Your task to perform on an android device: turn pop-ups off in chrome Image 0: 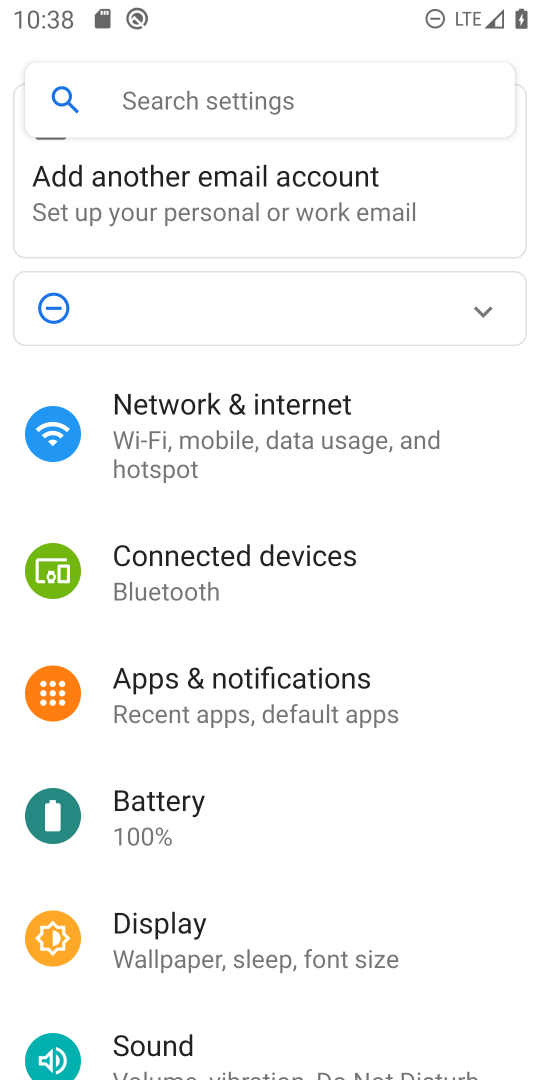
Step 0: press home button
Your task to perform on an android device: turn pop-ups off in chrome Image 1: 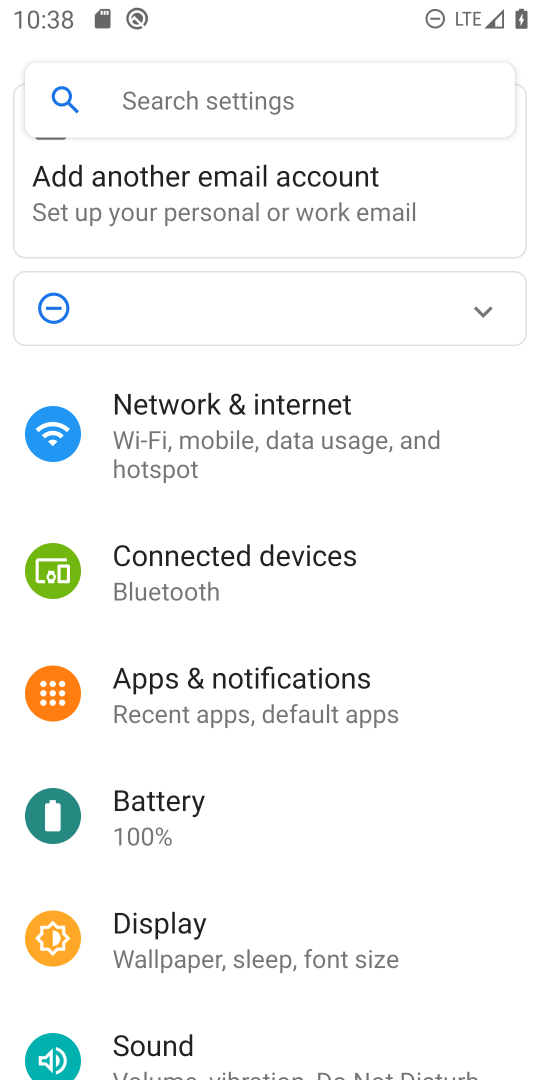
Step 1: press home button
Your task to perform on an android device: turn pop-ups off in chrome Image 2: 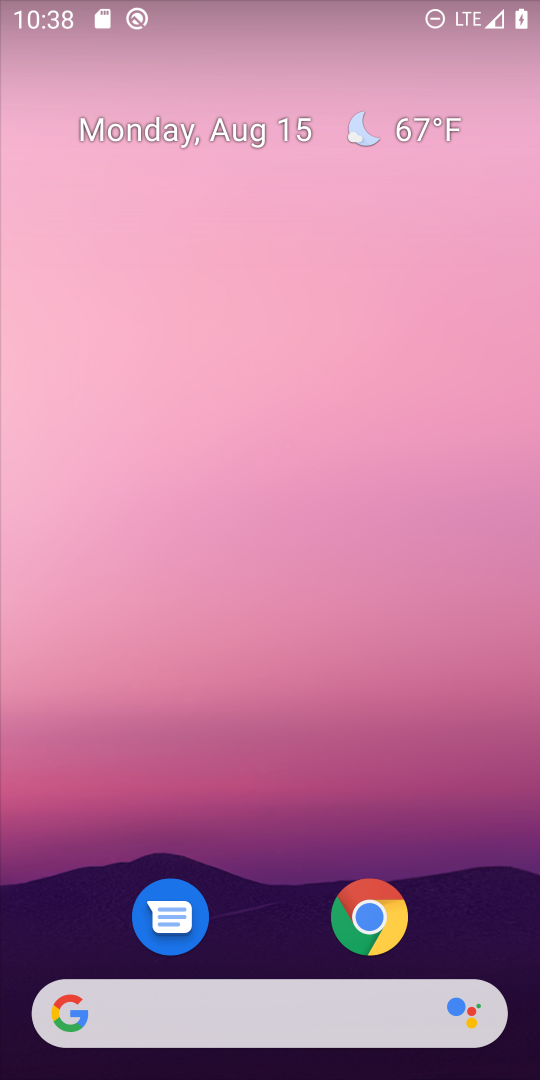
Step 2: click (371, 910)
Your task to perform on an android device: turn pop-ups off in chrome Image 3: 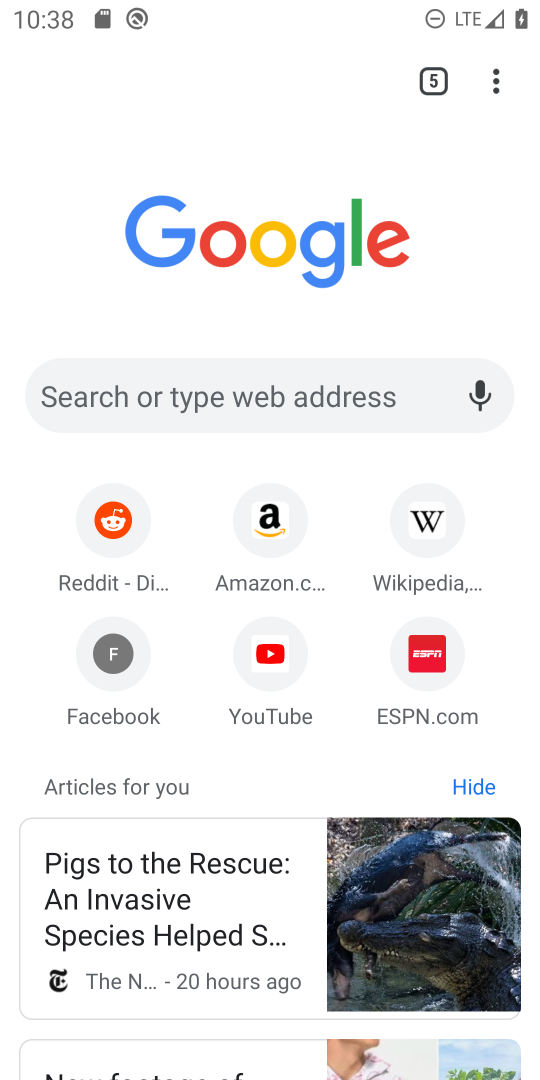
Step 3: click (495, 80)
Your task to perform on an android device: turn pop-ups off in chrome Image 4: 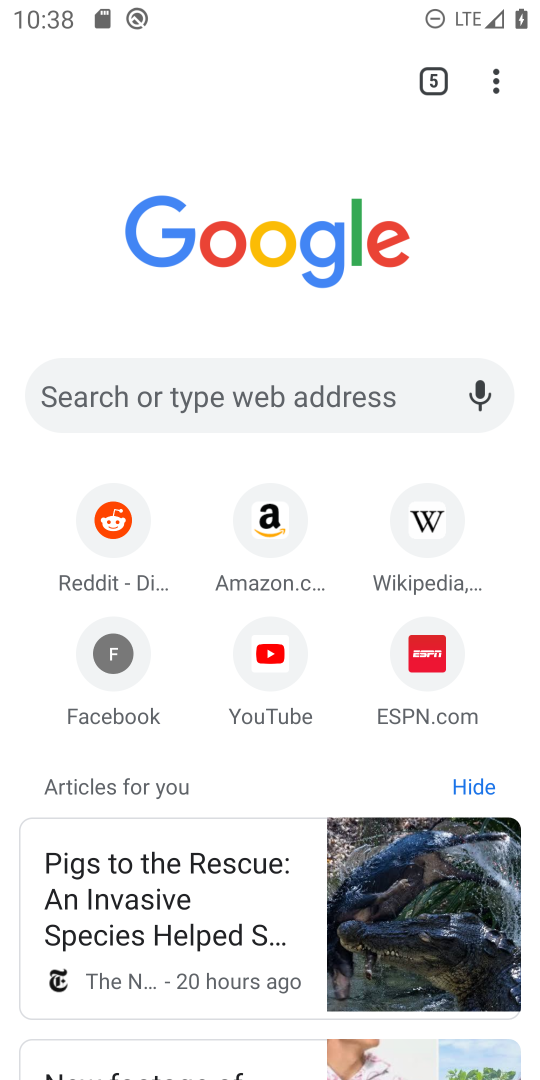
Step 4: click (495, 84)
Your task to perform on an android device: turn pop-ups off in chrome Image 5: 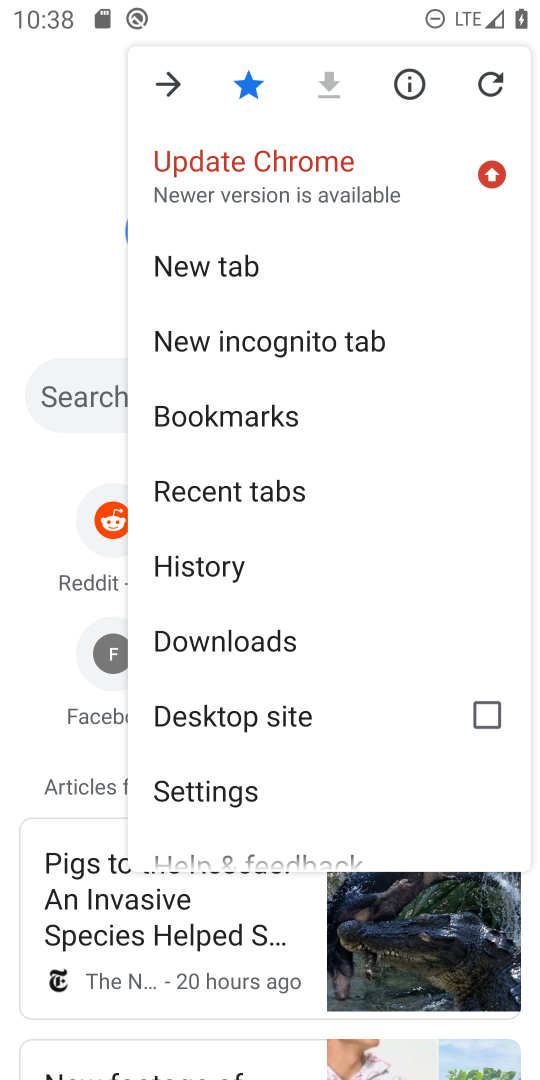
Step 5: click (241, 786)
Your task to perform on an android device: turn pop-ups off in chrome Image 6: 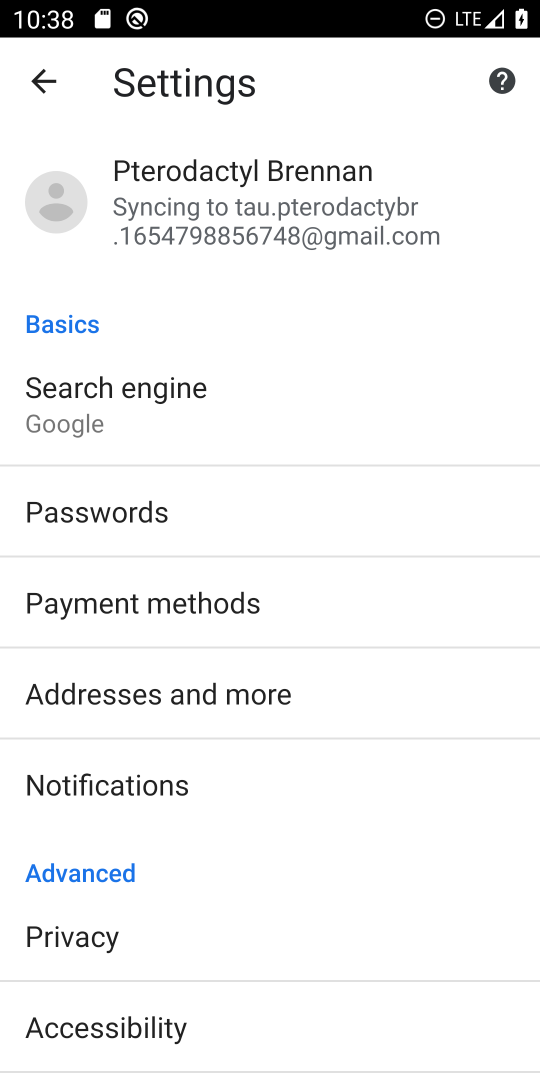
Step 6: drag from (323, 812) to (358, 267)
Your task to perform on an android device: turn pop-ups off in chrome Image 7: 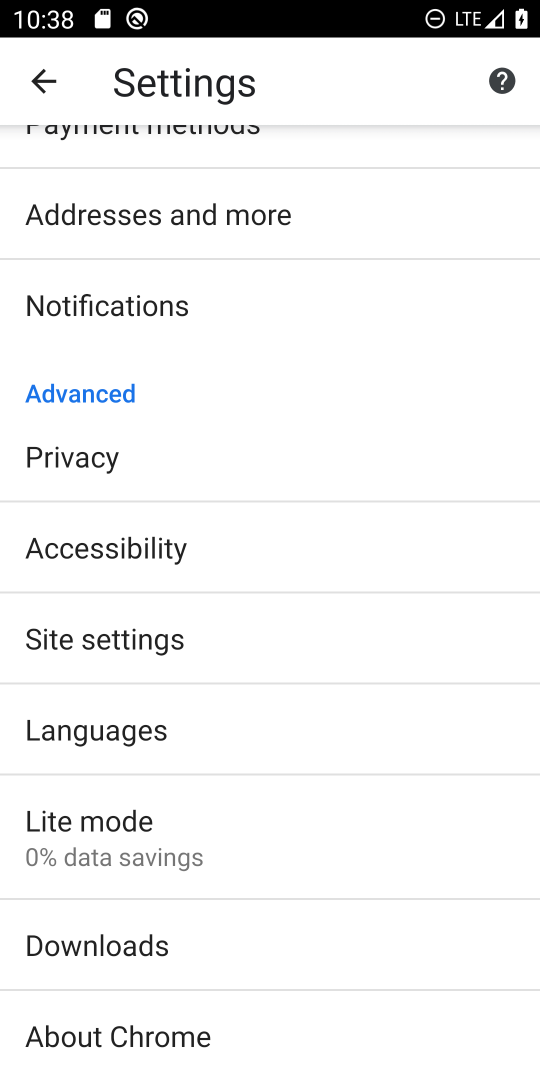
Step 7: click (213, 633)
Your task to perform on an android device: turn pop-ups off in chrome Image 8: 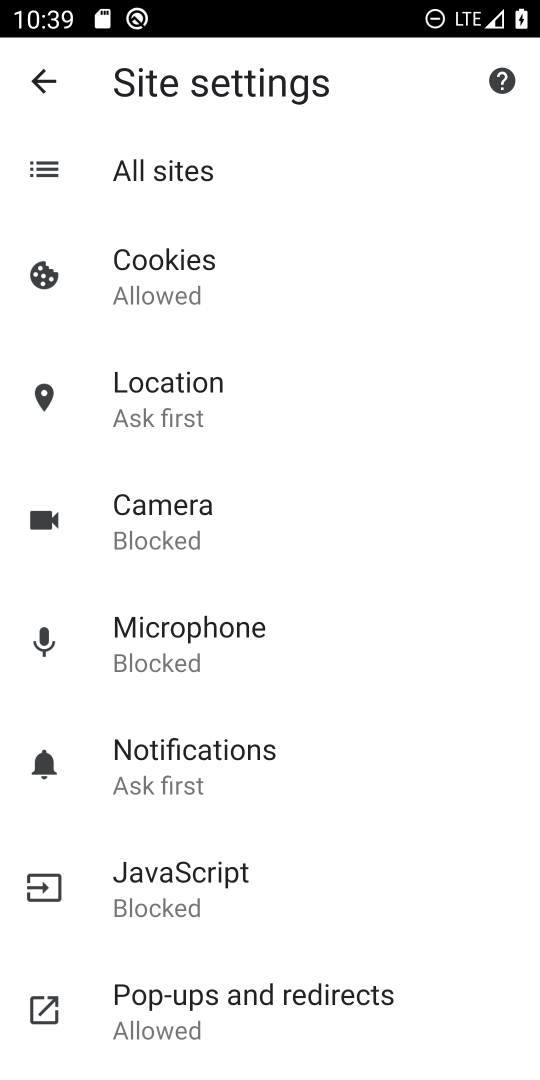
Step 8: click (318, 992)
Your task to perform on an android device: turn pop-ups off in chrome Image 9: 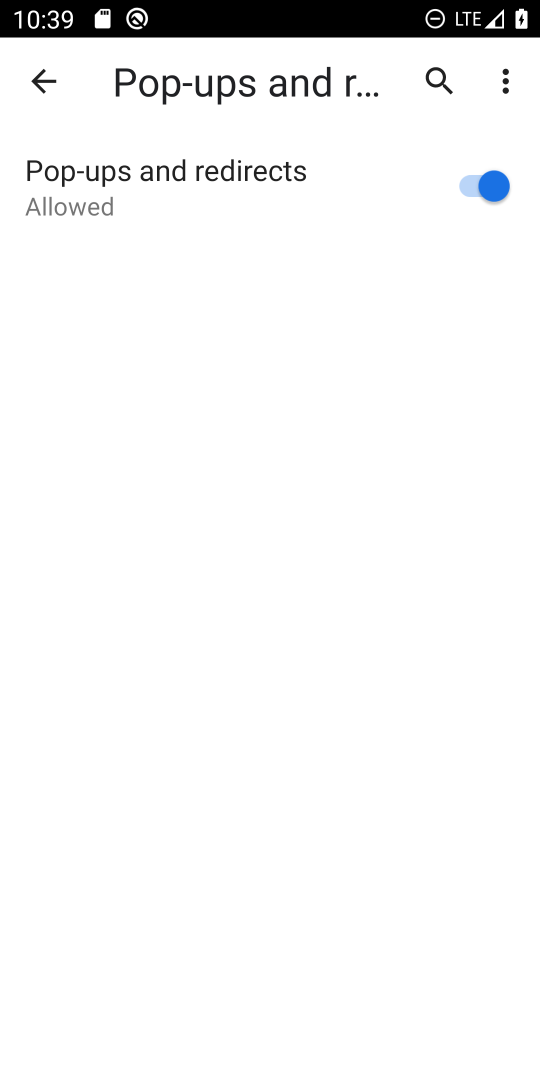
Step 9: click (478, 176)
Your task to perform on an android device: turn pop-ups off in chrome Image 10: 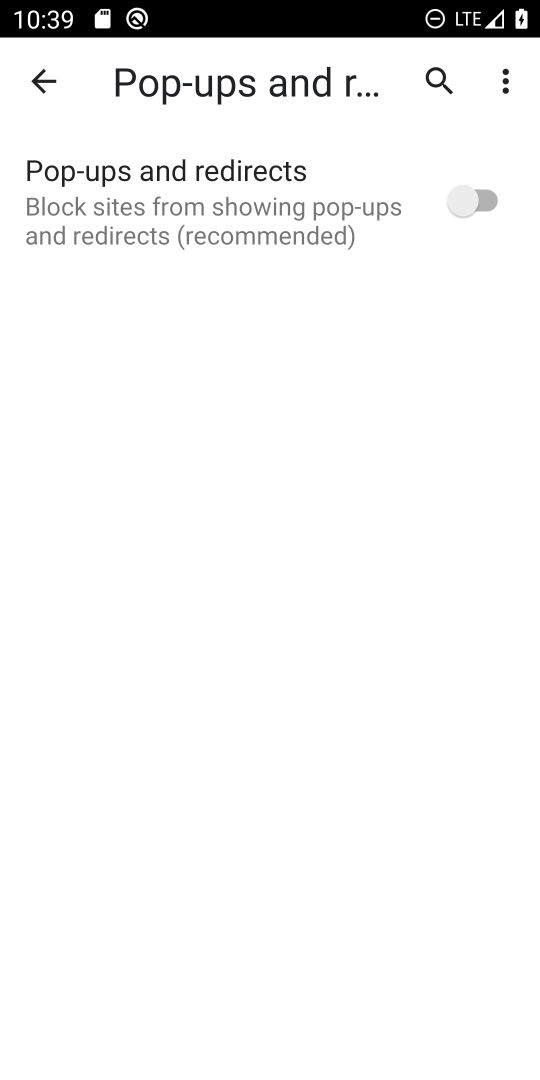
Step 10: task complete